Your task to perform on an android device: delete the emails in spam in the gmail app Image 0: 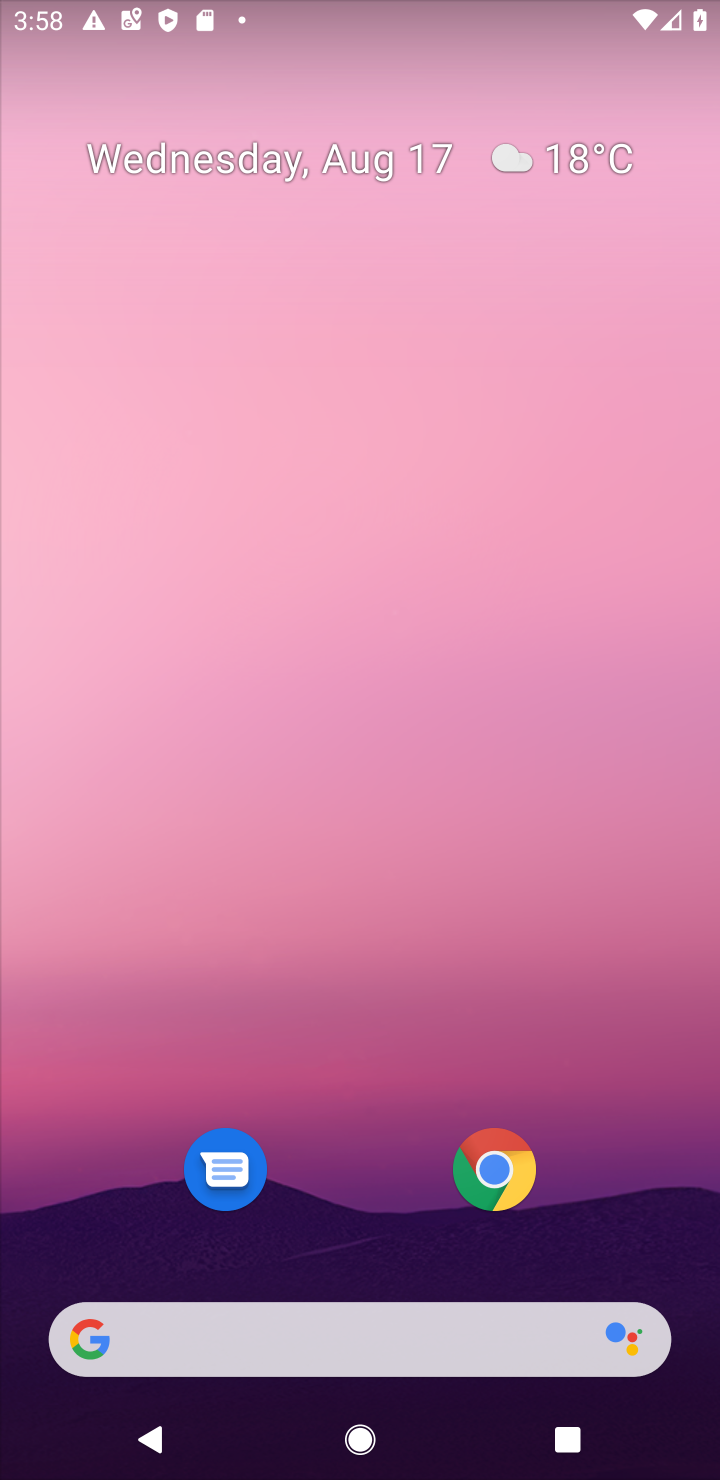
Step 0: drag from (345, 1073) to (403, 155)
Your task to perform on an android device: delete the emails in spam in the gmail app Image 1: 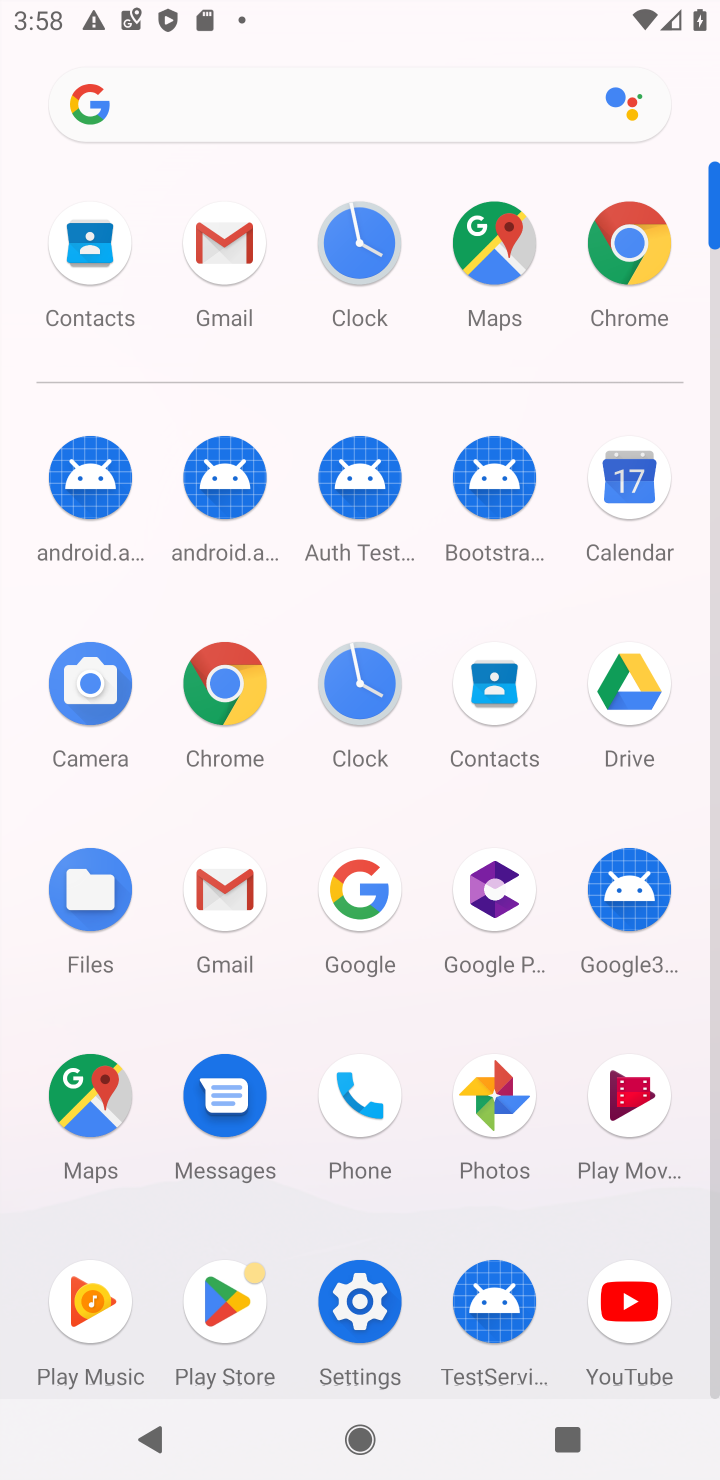
Step 1: click (213, 889)
Your task to perform on an android device: delete the emails in spam in the gmail app Image 2: 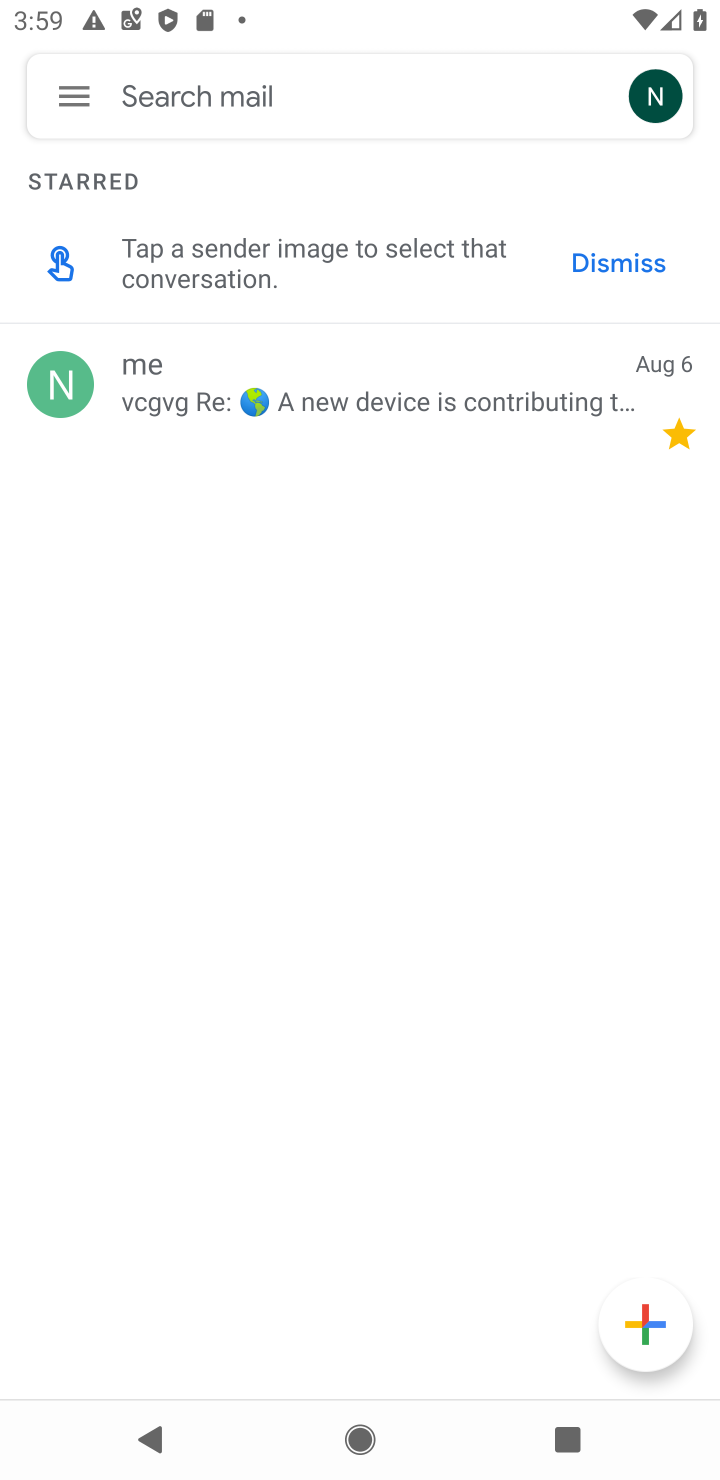
Step 2: click (65, 95)
Your task to perform on an android device: delete the emails in spam in the gmail app Image 3: 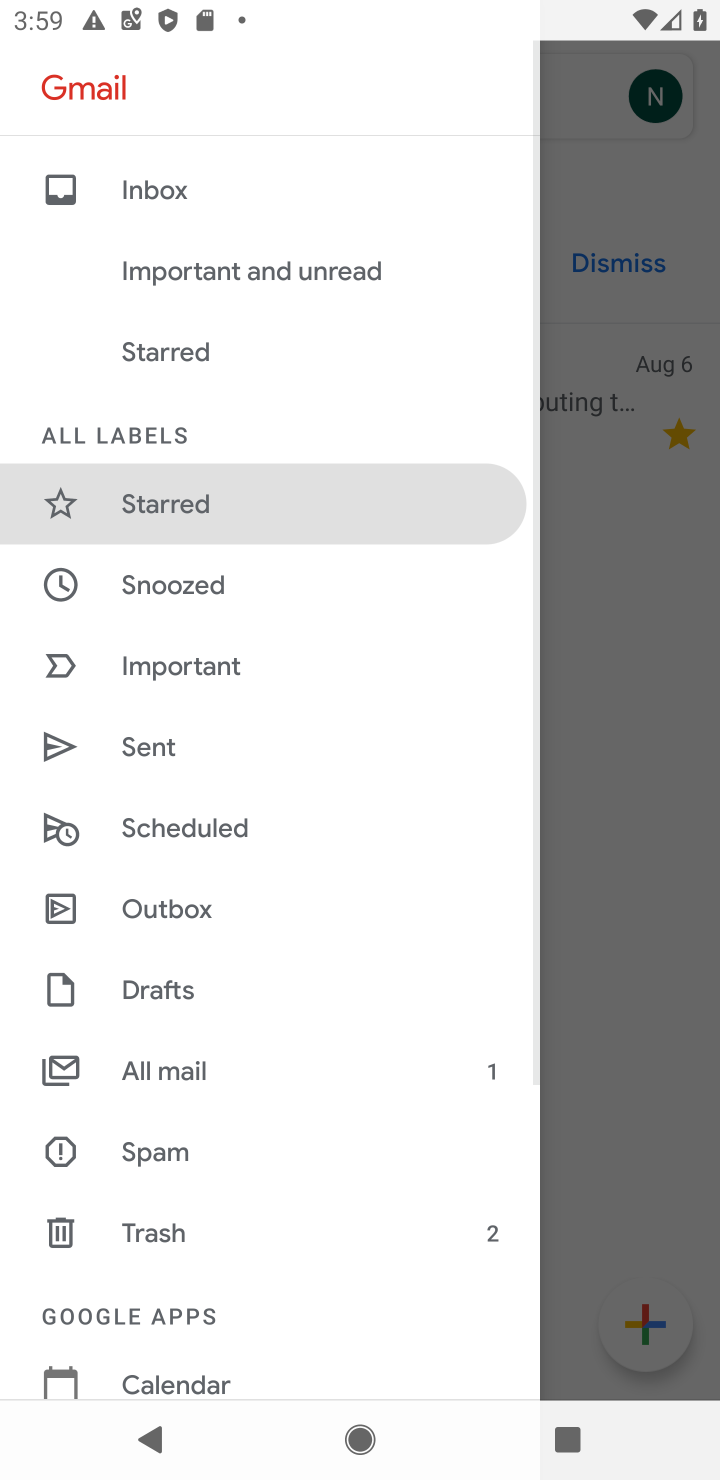
Step 3: drag from (305, 1009) to (333, 568)
Your task to perform on an android device: delete the emails in spam in the gmail app Image 4: 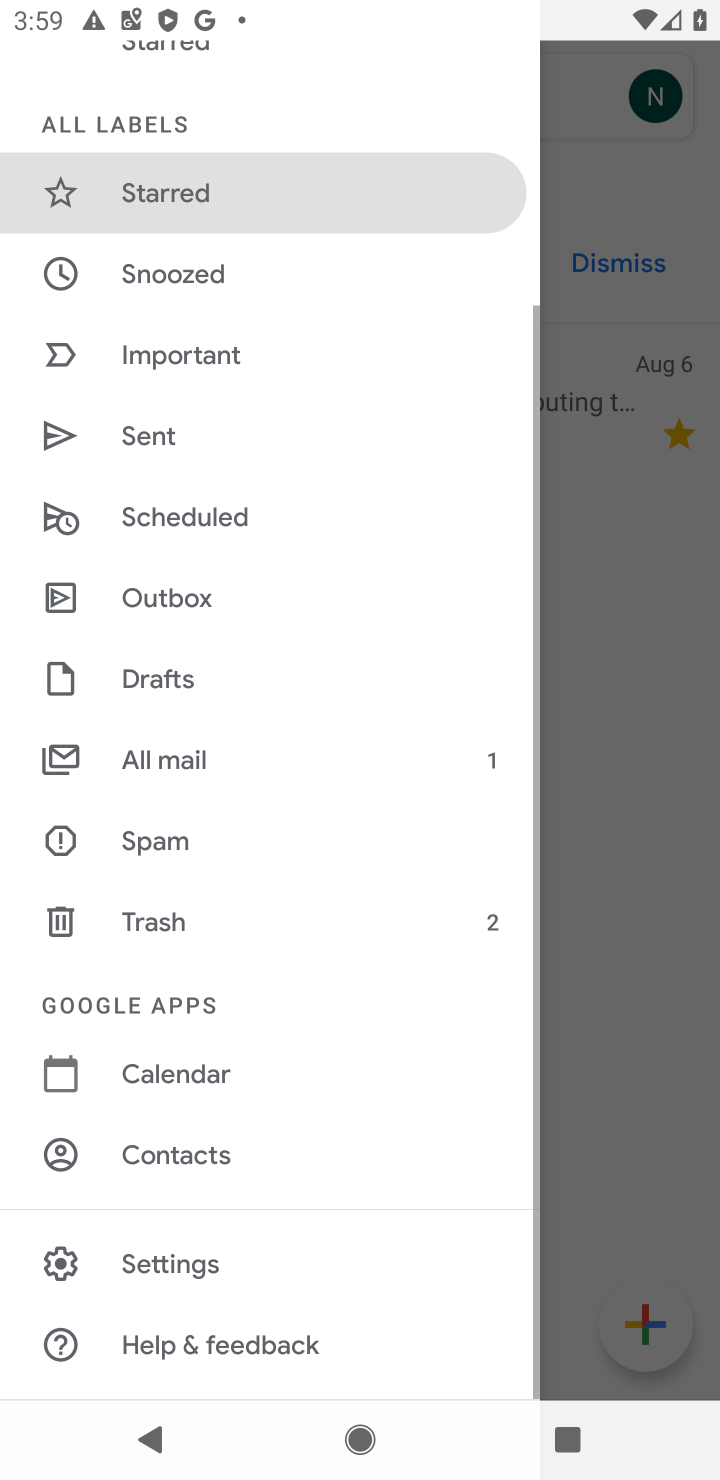
Step 4: click (148, 831)
Your task to perform on an android device: delete the emails in spam in the gmail app Image 5: 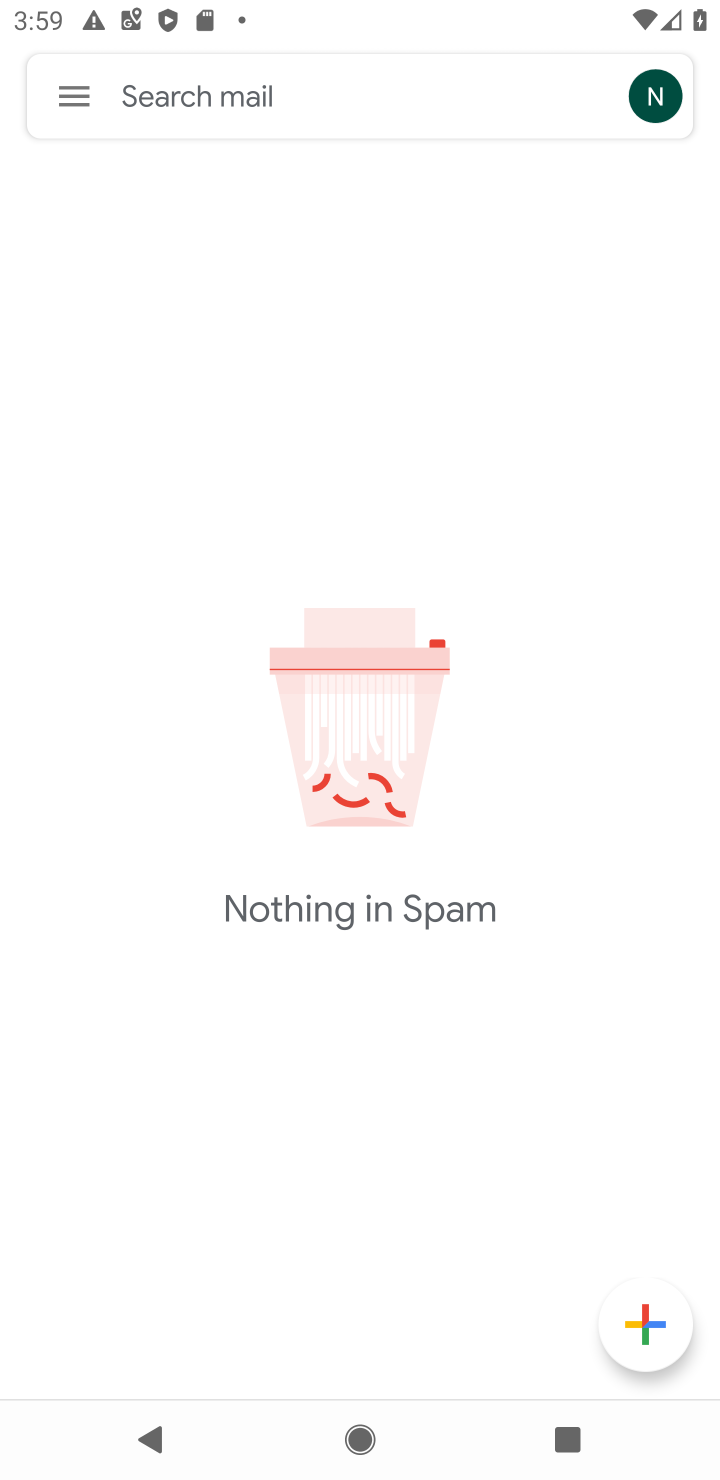
Step 5: task complete